Your task to perform on an android device: move a message to another label in the gmail app Image 0: 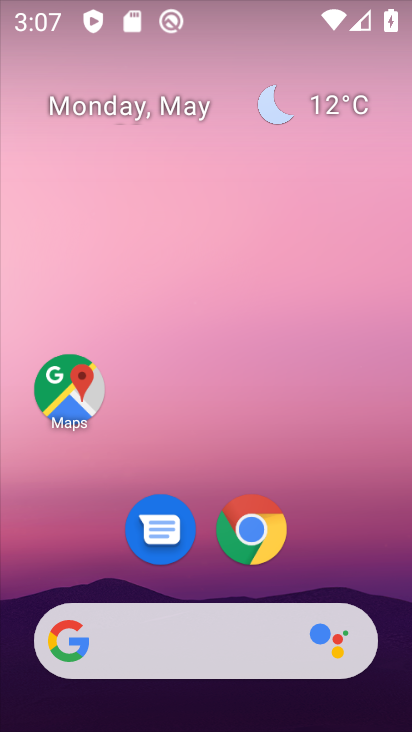
Step 0: drag from (331, 525) to (148, 5)
Your task to perform on an android device: move a message to another label in the gmail app Image 1: 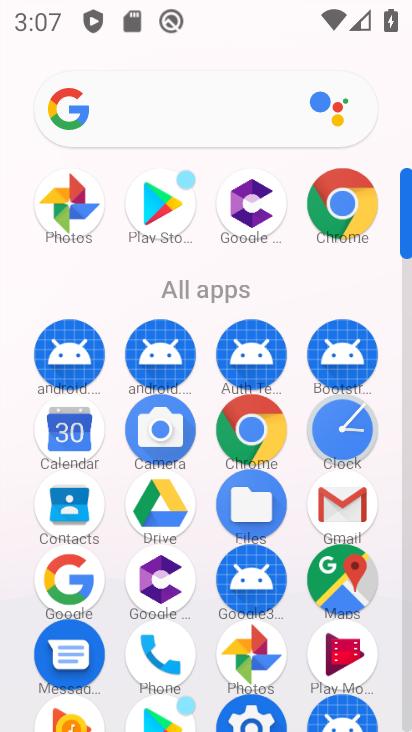
Step 1: drag from (209, 630) to (232, 176)
Your task to perform on an android device: move a message to another label in the gmail app Image 2: 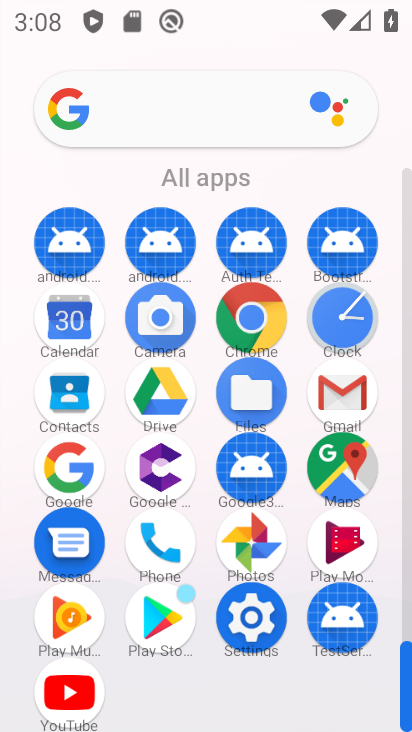
Step 2: click (348, 385)
Your task to perform on an android device: move a message to another label in the gmail app Image 3: 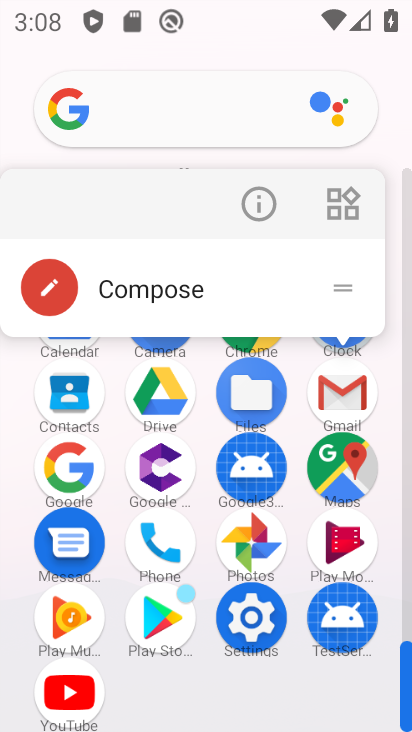
Step 3: click (335, 391)
Your task to perform on an android device: move a message to another label in the gmail app Image 4: 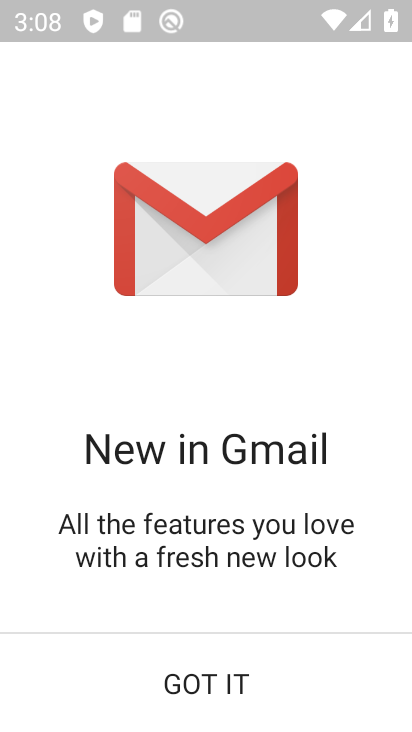
Step 4: click (205, 680)
Your task to perform on an android device: move a message to another label in the gmail app Image 5: 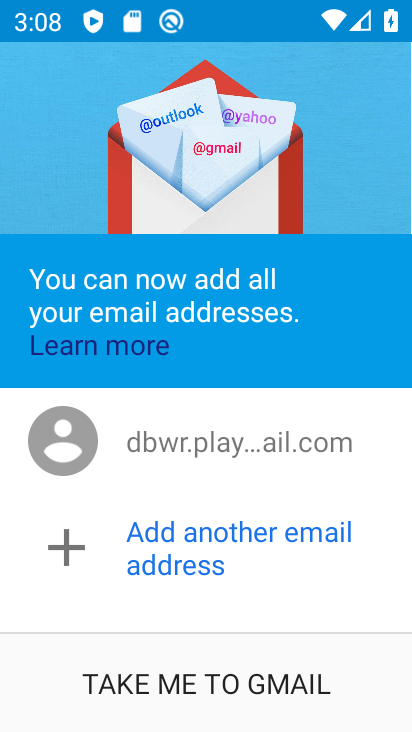
Step 5: click (226, 713)
Your task to perform on an android device: move a message to another label in the gmail app Image 6: 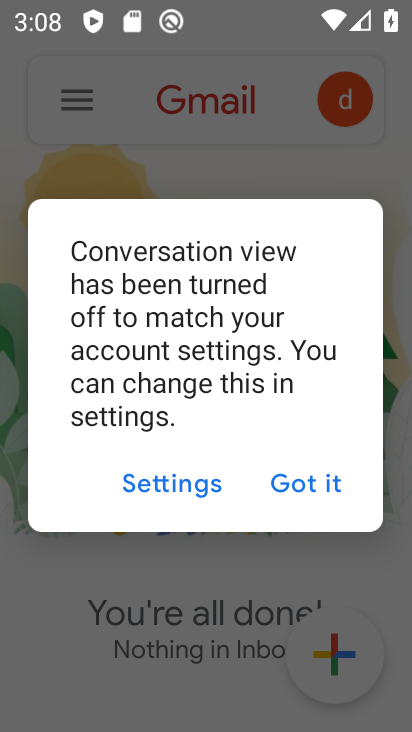
Step 6: click (322, 485)
Your task to perform on an android device: move a message to another label in the gmail app Image 7: 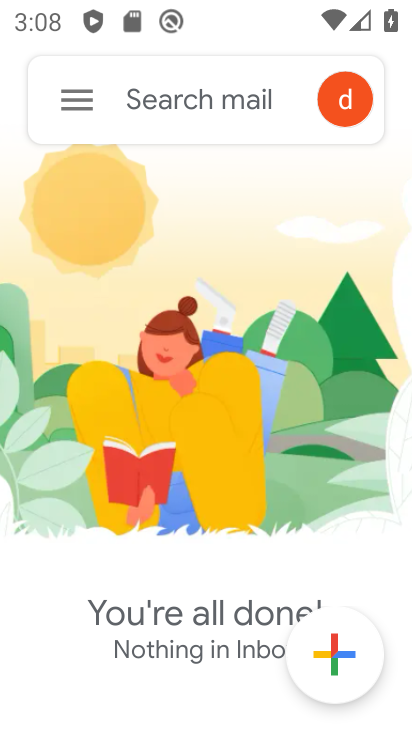
Step 7: click (69, 89)
Your task to perform on an android device: move a message to another label in the gmail app Image 8: 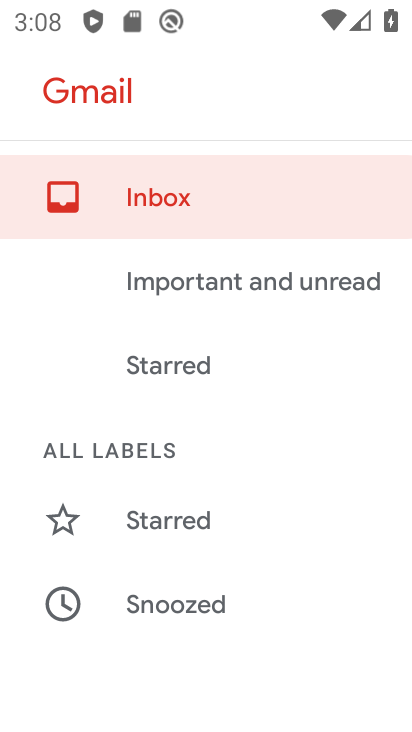
Step 8: drag from (129, 592) to (181, 158)
Your task to perform on an android device: move a message to another label in the gmail app Image 9: 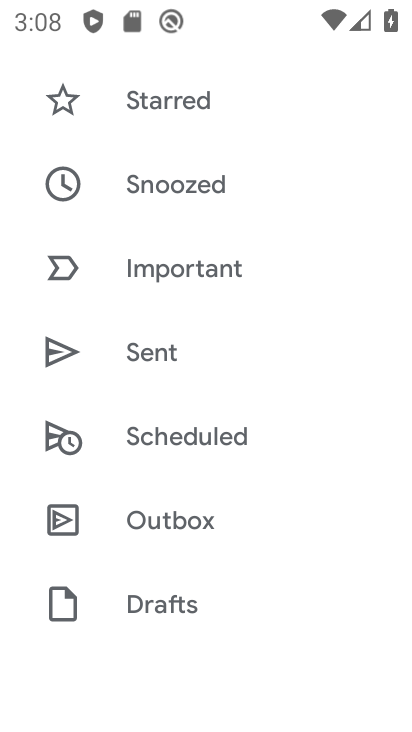
Step 9: drag from (192, 572) to (242, 261)
Your task to perform on an android device: move a message to another label in the gmail app Image 10: 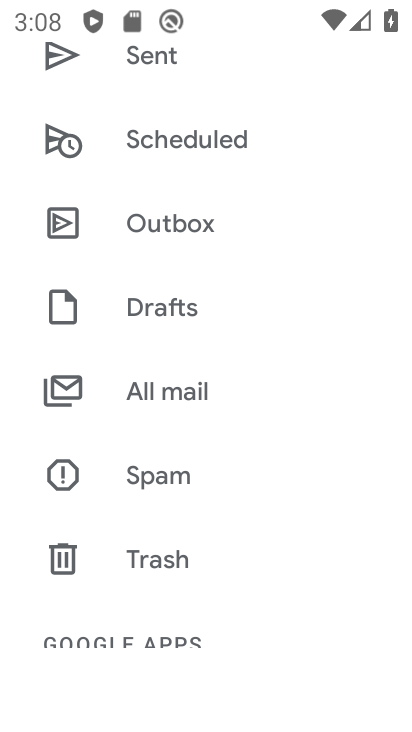
Step 10: click (186, 375)
Your task to perform on an android device: move a message to another label in the gmail app Image 11: 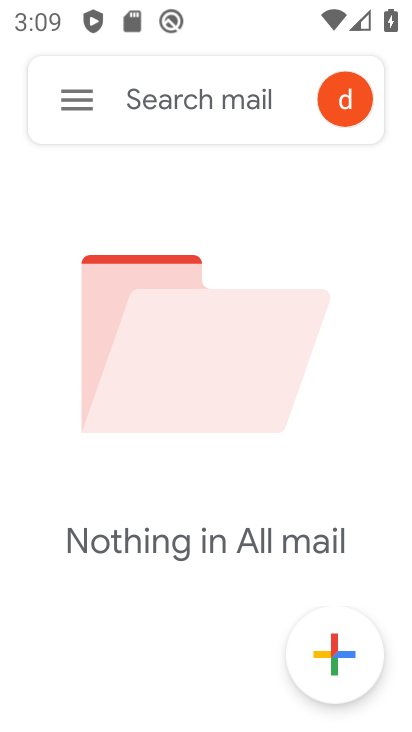
Step 11: task complete